Your task to perform on an android device: check data usage Image 0: 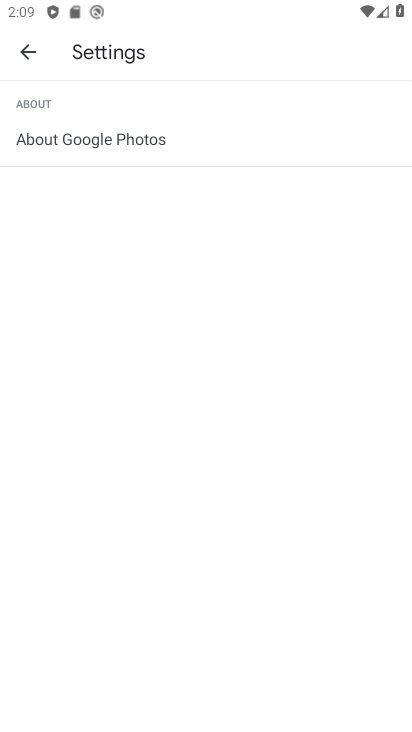
Step 0: press home button
Your task to perform on an android device: check data usage Image 1: 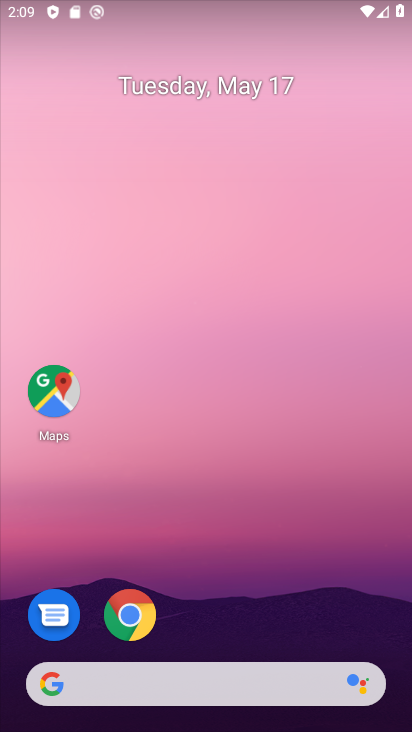
Step 1: drag from (229, 693) to (285, 130)
Your task to perform on an android device: check data usage Image 2: 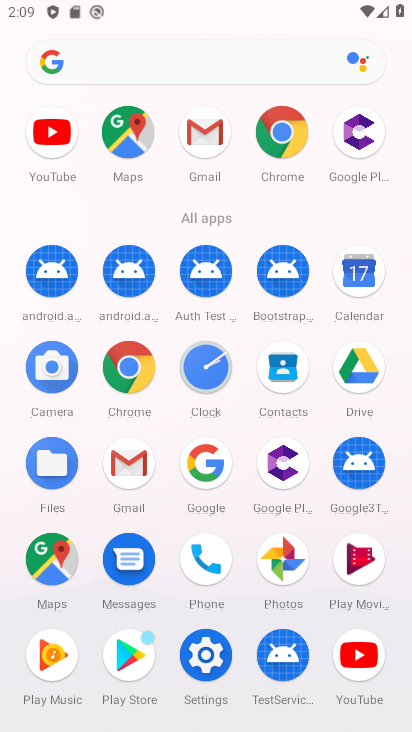
Step 2: click (208, 645)
Your task to perform on an android device: check data usage Image 3: 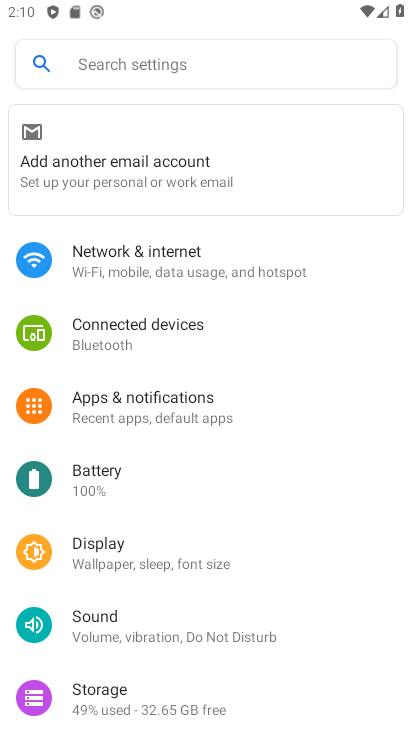
Step 3: click (176, 248)
Your task to perform on an android device: check data usage Image 4: 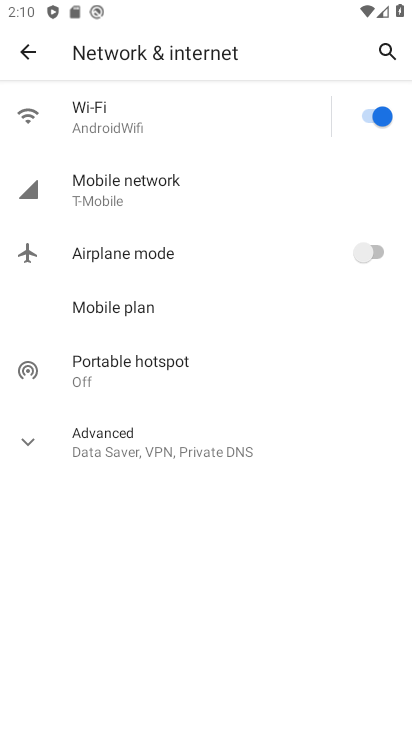
Step 4: click (142, 192)
Your task to perform on an android device: check data usage Image 5: 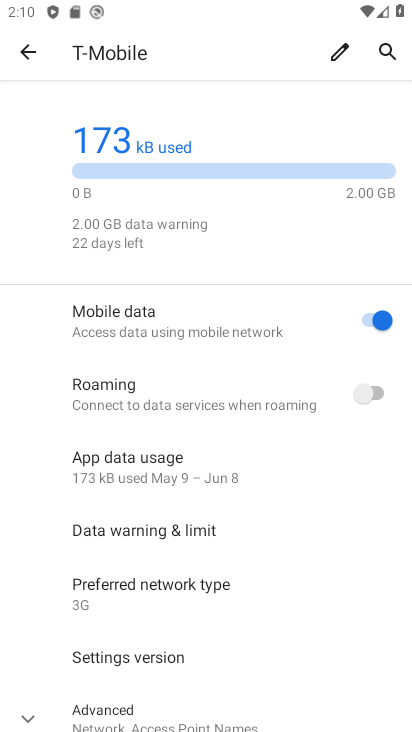
Step 5: click (150, 459)
Your task to perform on an android device: check data usage Image 6: 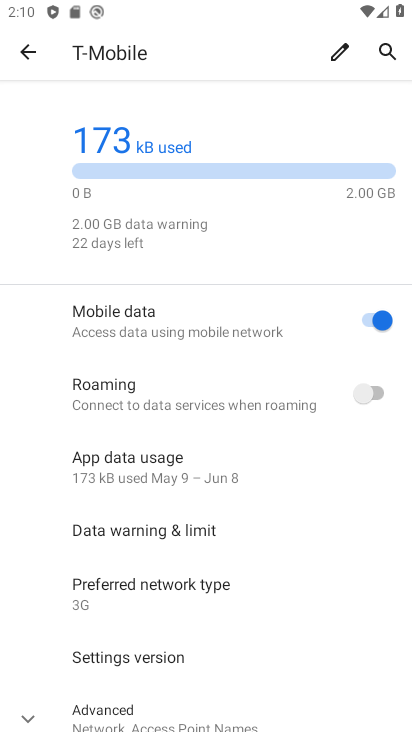
Step 6: click (172, 473)
Your task to perform on an android device: check data usage Image 7: 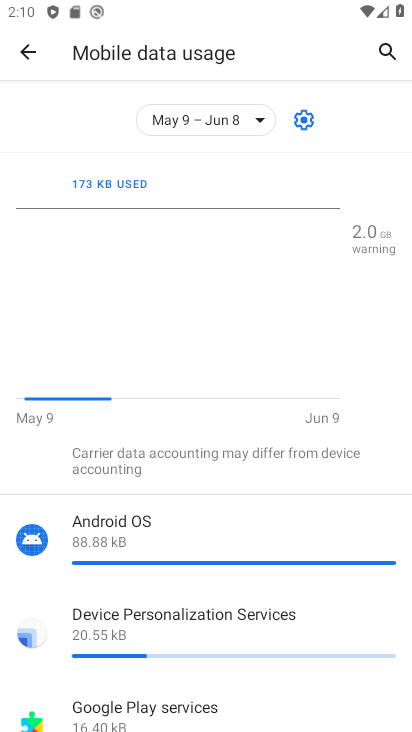
Step 7: task complete